Your task to perform on an android device: Search for "razer thresher" on bestbuy, select the first entry, add it to the cart, then select checkout. Image 0: 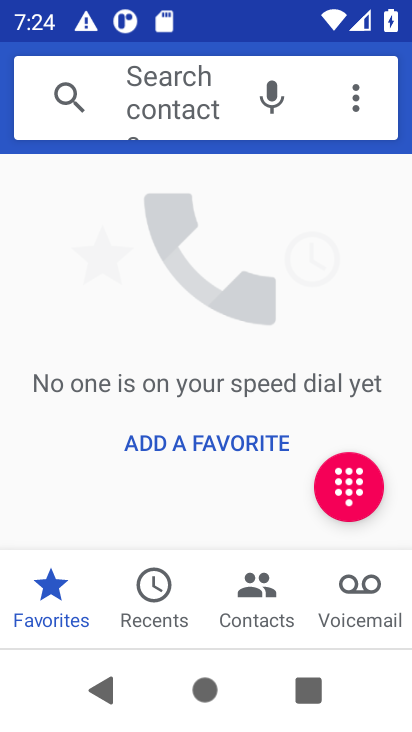
Step 0: task complete